Your task to perform on an android device: check out phone information Image 0: 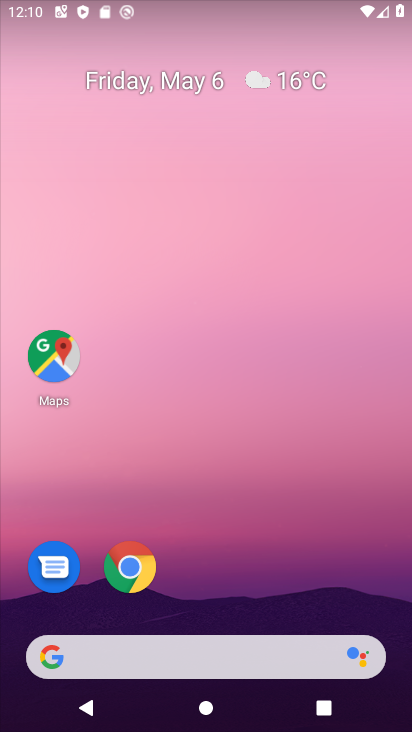
Step 0: drag from (226, 550) to (224, 6)
Your task to perform on an android device: check out phone information Image 1: 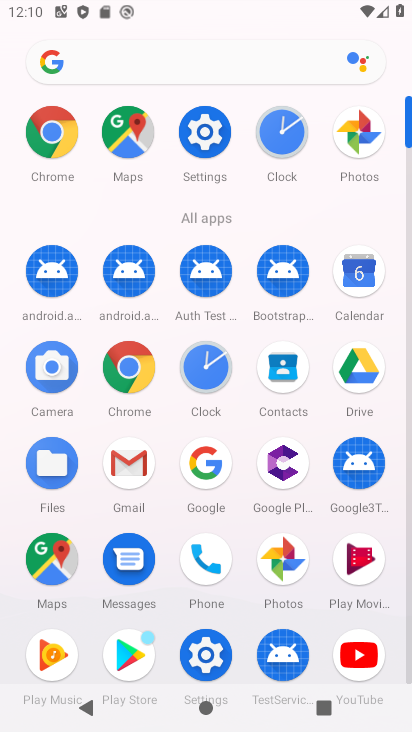
Step 1: click (219, 136)
Your task to perform on an android device: check out phone information Image 2: 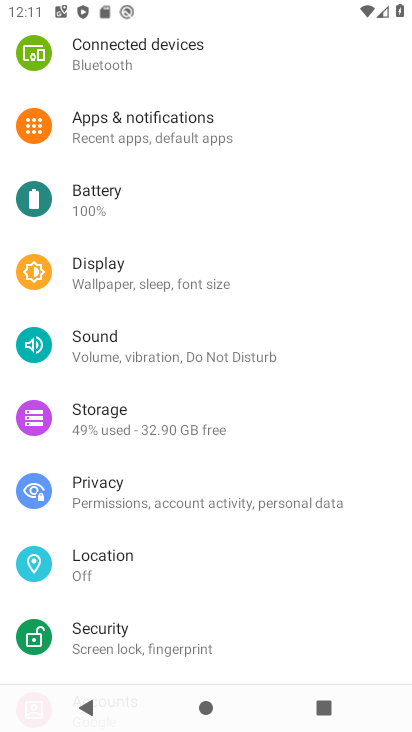
Step 2: drag from (122, 548) to (144, 105)
Your task to perform on an android device: check out phone information Image 3: 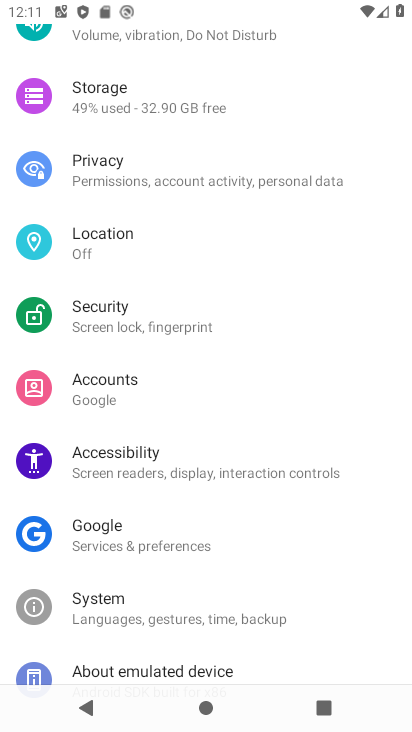
Step 3: drag from (184, 492) to (221, 107)
Your task to perform on an android device: check out phone information Image 4: 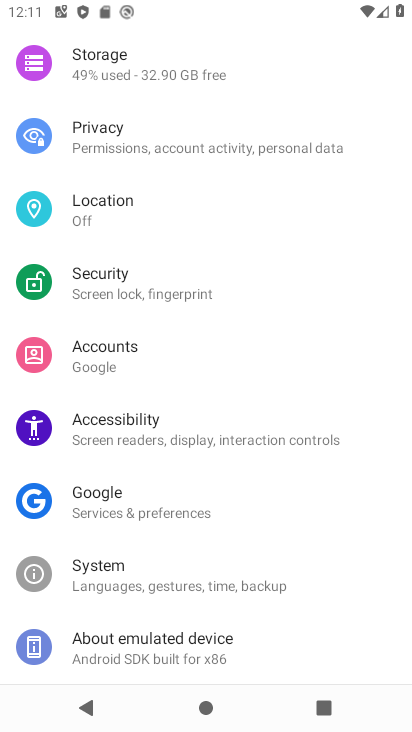
Step 4: drag from (135, 576) to (126, 192)
Your task to perform on an android device: check out phone information Image 5: 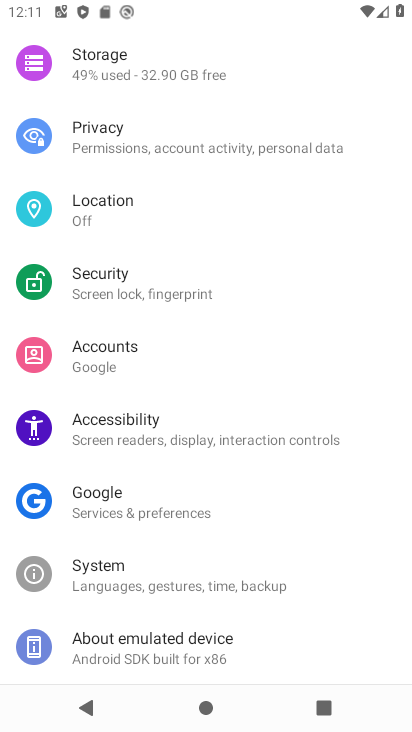
Step 5: click (149, 640)
Your task to perform on an android device: check out phone information Image 6: 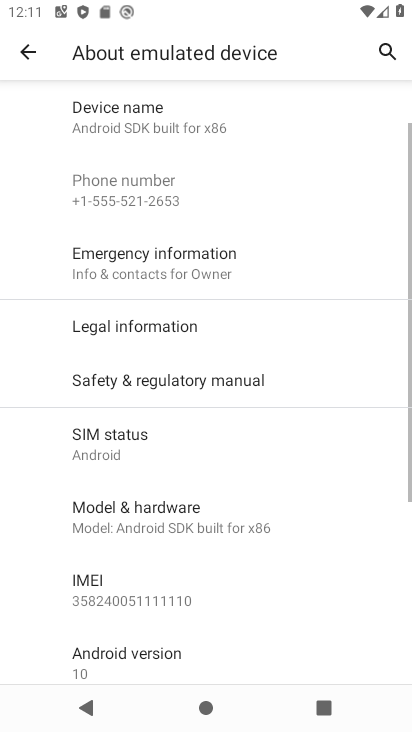
Step 6: task complete